Your task to perform on an android device: Go to Yahoo.com Image 0: 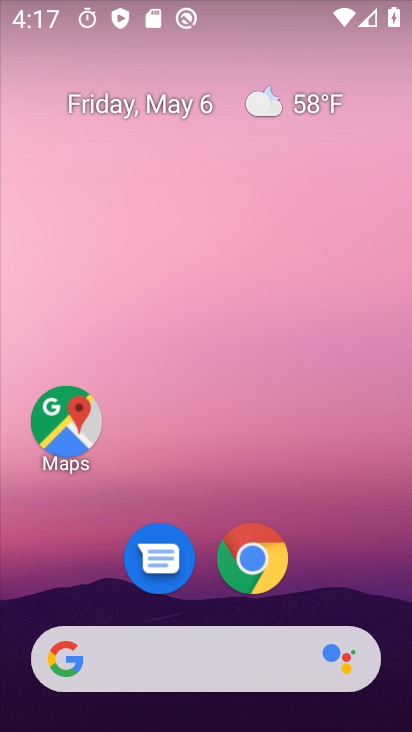
Step 0: drag from (328, 625) to (319, 8)
Your task to perform on an android device: Go to Yahoo.com Image 1: 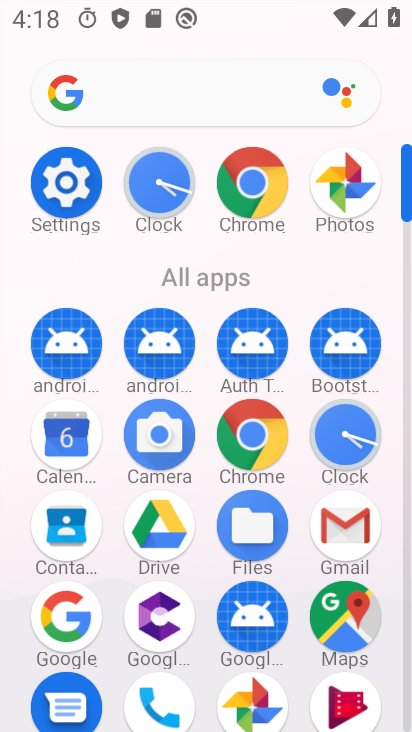
Step 1: click (261, 439)
Your task to perform on an android device: Go to Yahoo.com Image 2: 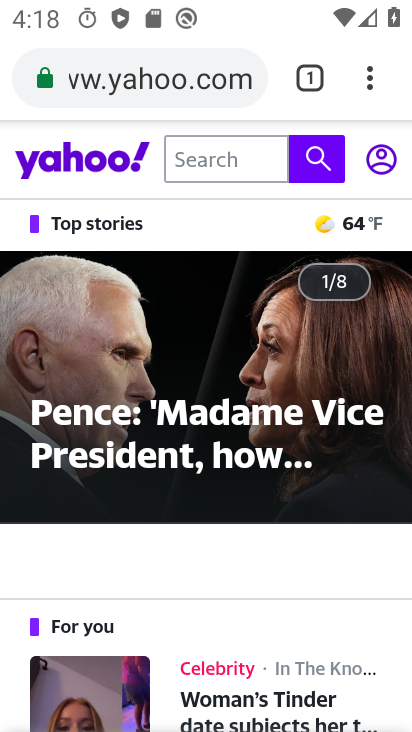
Step 2: task complete